Your task to perform on an android device: Open calendar and show me the third week of next month Image 0: 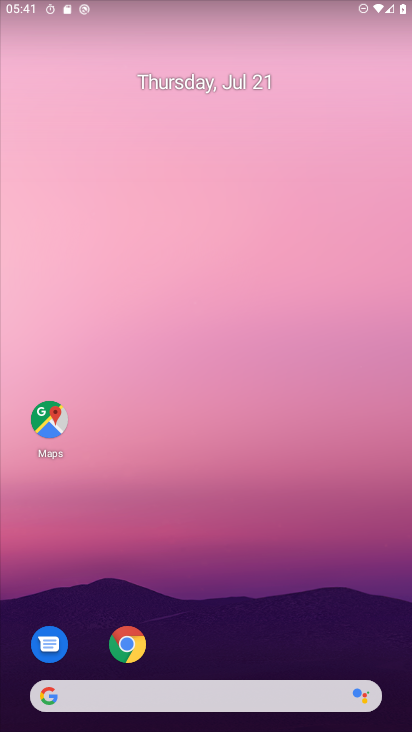
Step 0: drag from (186, 547) to (197, 151)
Your task to perform on an android device: Open calendar and show me the third week of next month Image 1: 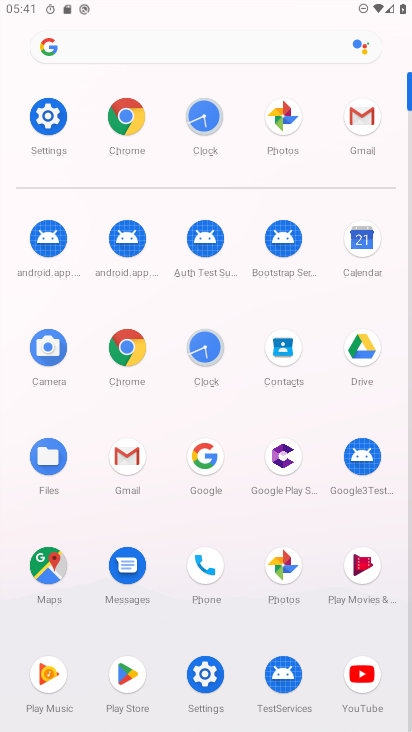
Step 1: click (359, 251)
Your task to perform on an android device: Open calendar and show me the third week of next month Image 2: 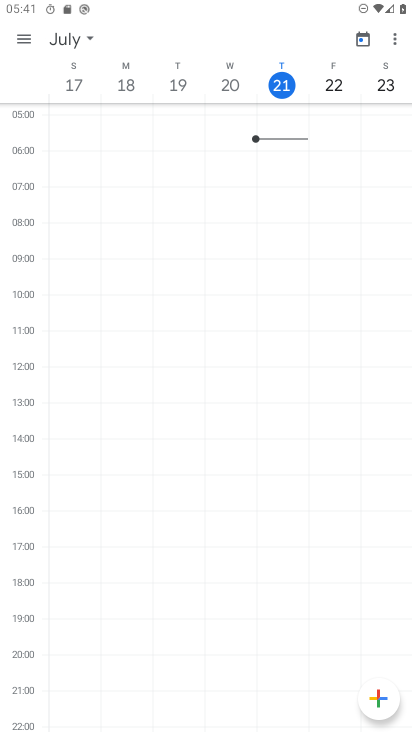
Step 2: click (21, 39)
Your task to perform on an android device: Open calendar and show me the third week of next month Image 3: 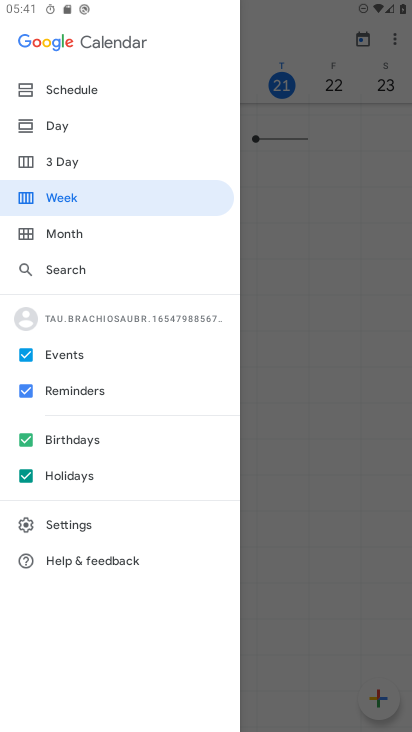
Step 3: click (66, 200)
Your task to perform on an android device: Open calendar and show me the third week of next month Image 4: 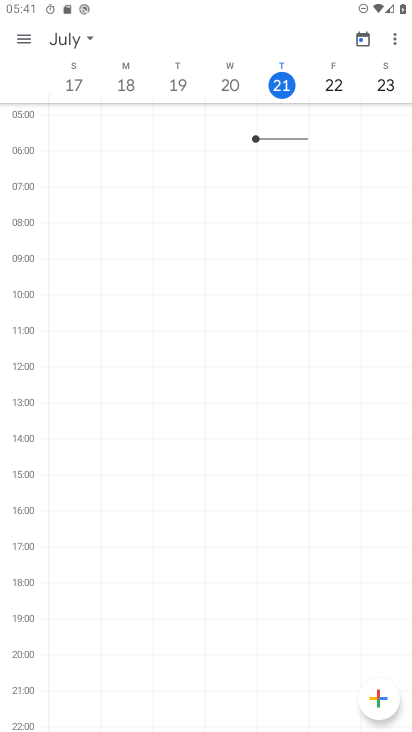
Step 4: click (67, 42)
Your task to perform on an android device: Open calendar and show me the third week of next month Image 5: 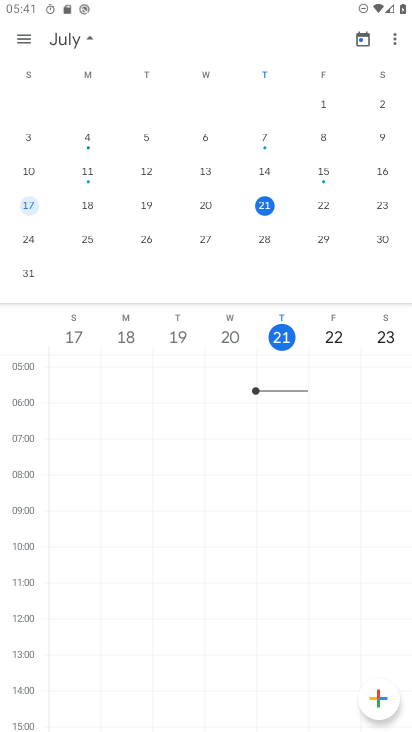
Step 5: drag from (312, 194) to (32, 197)
Your task to perform on an android device: Open calendar and show me the third week of next month Image 6: 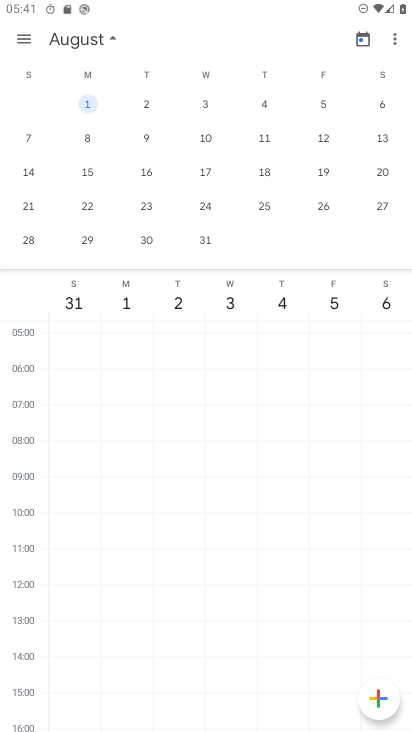
Step 6: click (24, 176)
Your task to perform on an android device: Open calendar and show me the third week of next month Image 7: 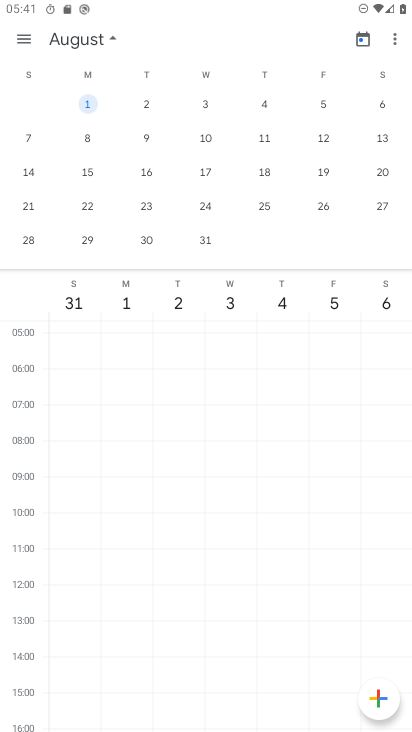
Step 7: click (24, 176)
Your task to perform on an android device: Open calendar and show me the third week of next month Image 8: 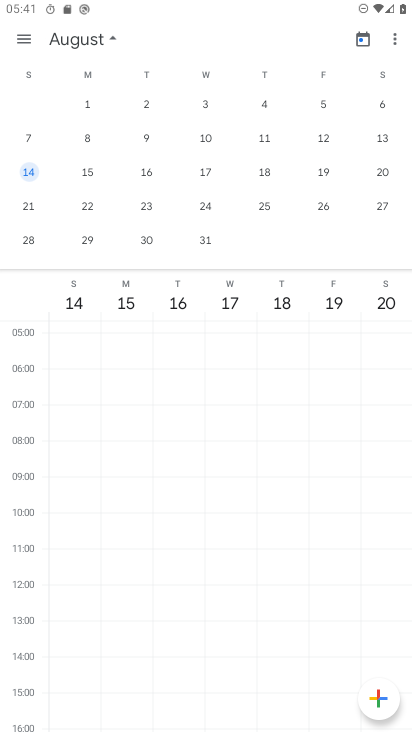
Step 8: task complete